Your task to perform on an android device: change timer sound Image 0: 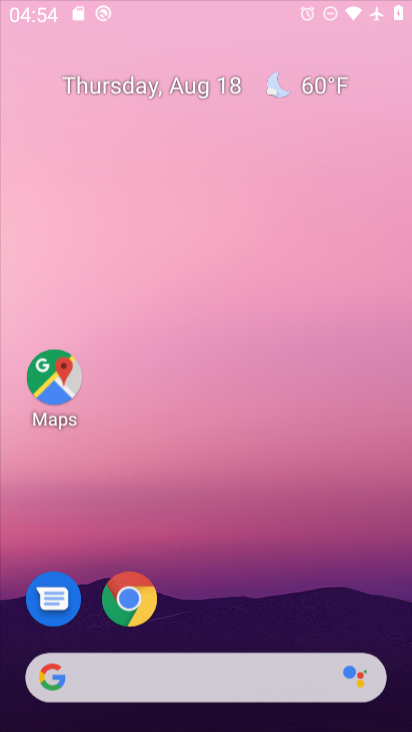
Step 0: press home button
Your task to perform on an android device: change timer sound Image 1: 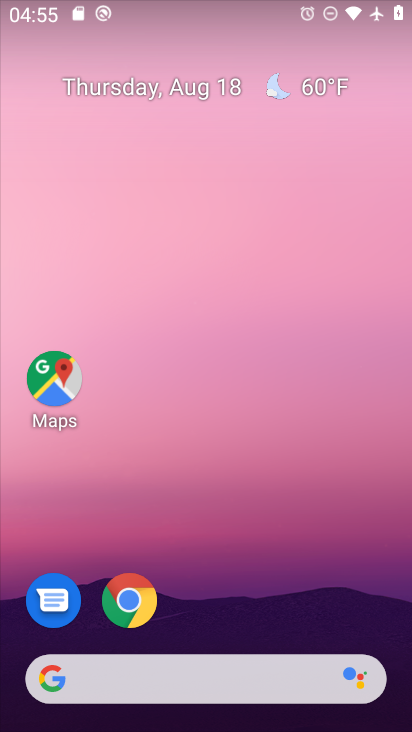
Step 1: drag from (213, 626) to (225, 36)
Your task to perform on an android device: change timer sound Image 2: 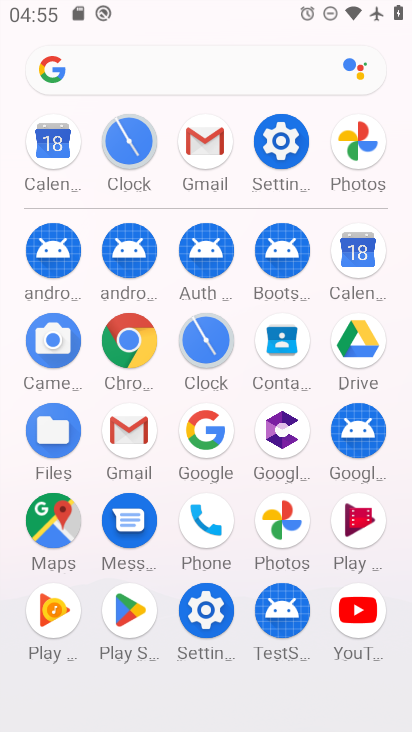
Step 2: click (117, 157)
Your task to perform on an android device: change timer sound Image 3: 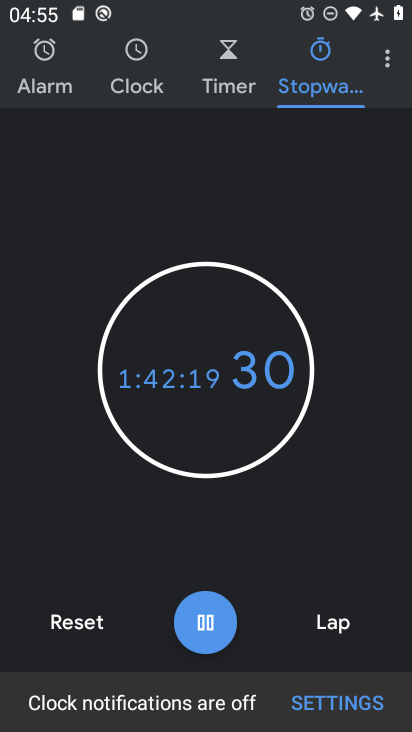
Step 3: click (391, 62)
Your task to perform on an android device: change timer sound Image 4: 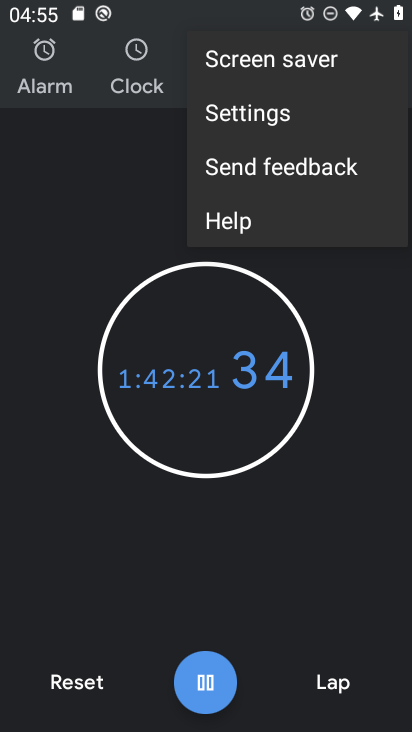
Step 4: click (246, 121)
Your task to perform on an android device: change timer sound Image 5: 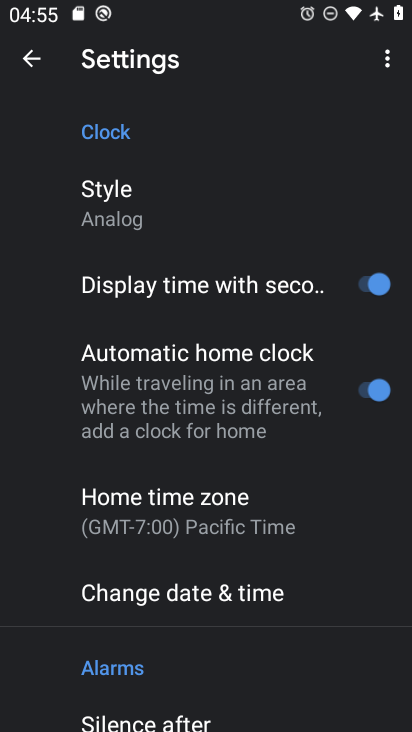
Step 5: drag from (295, 654) to (222, 36)
Your task to perform on an android device: change timer sound Image 6: 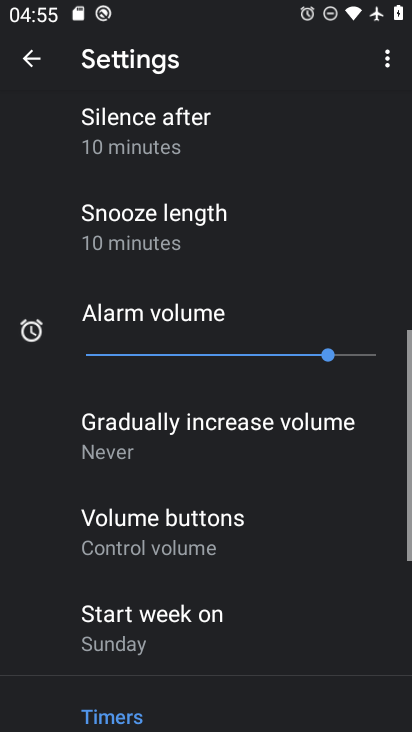
Step 6: drag from (266, 667) to (272, 53)
Your task to perform on an android device: change timer sound Image 7: 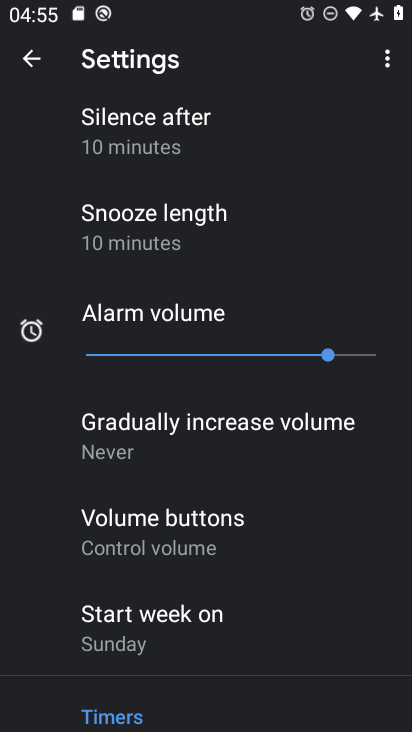
Step 7: drag from (260, 639) to (283, 4)
Your task to perform on an android device: change timer sound Image 8: 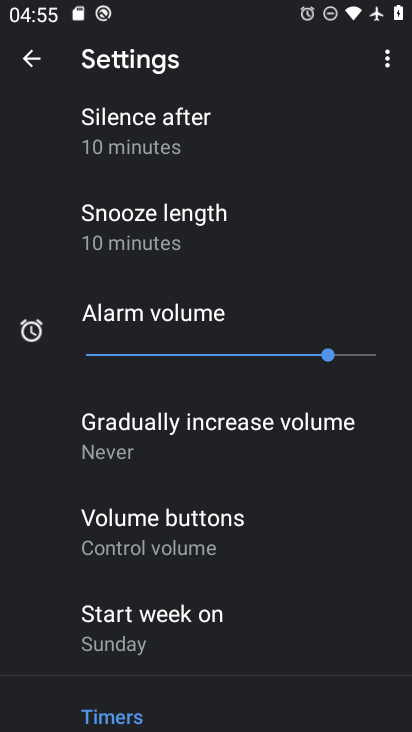
Step 8: drag from (257, 704) to (238, 110)
Your task to perform on an android device: change timer sound Image 9: 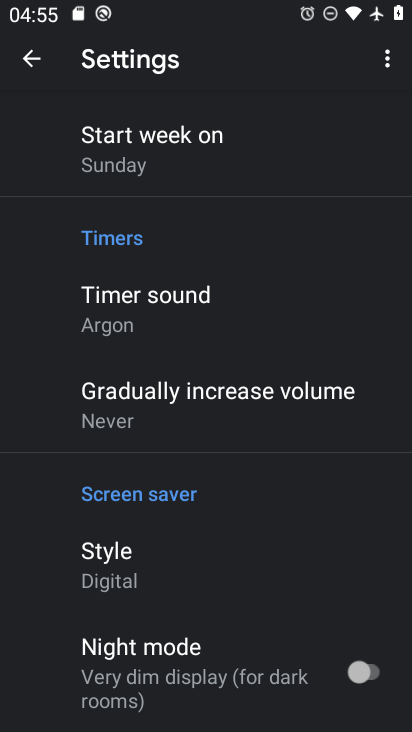
Step 9: click (120, 308)
Your task to perform on an android device: change timer sound Image 10: 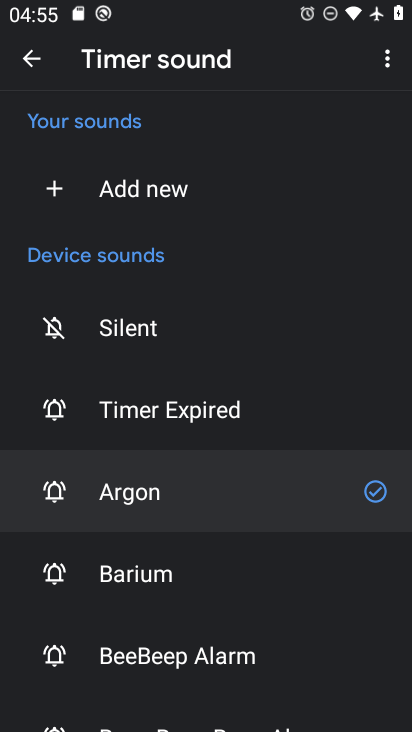
Step 10: click (127, 579)
Your task to perform on an android device: change timer sound Image 11: 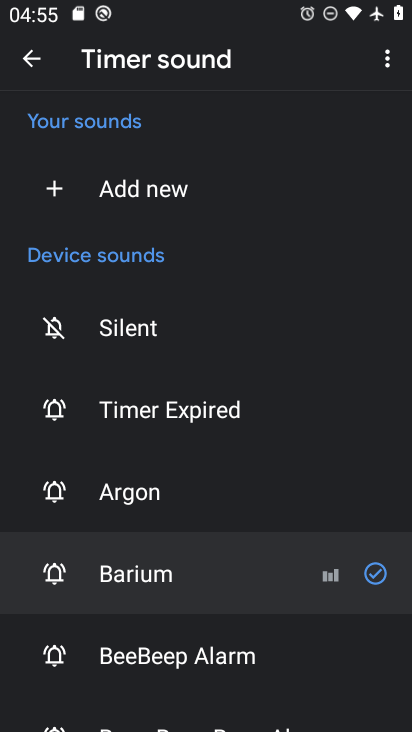
Step 11: task complete